Your task to perform on an android device: Go to sound settings Image 0: 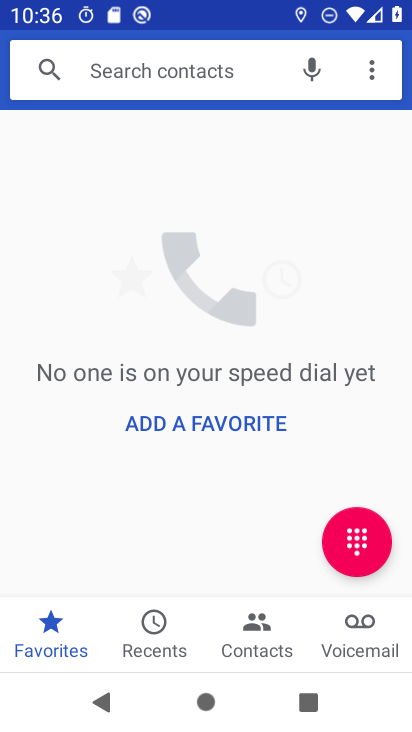
Step 0: press home button
Your task to perform on an android device: Go to sound settings Image 1: 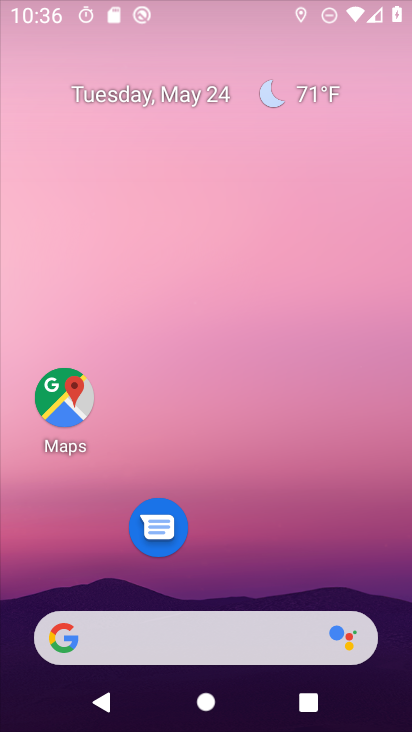
Step 1: drag from (222, 548) to (269, 80)
Your task to perform on an android device: Go to sound settings Image 2: 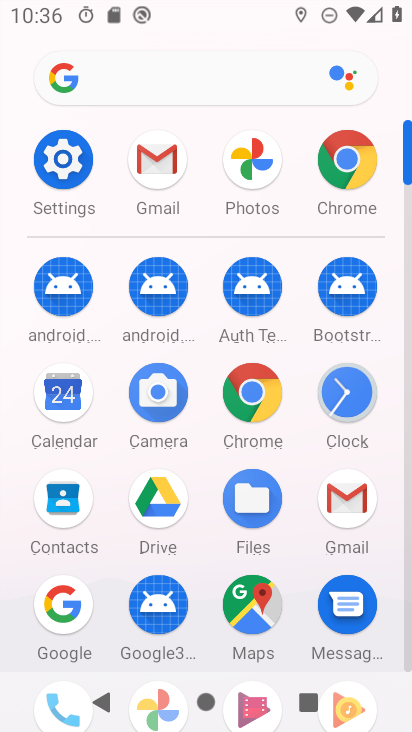
Step 2: click (66, 151)
Your task to perform on an android device: Go to sound settings Image 3: 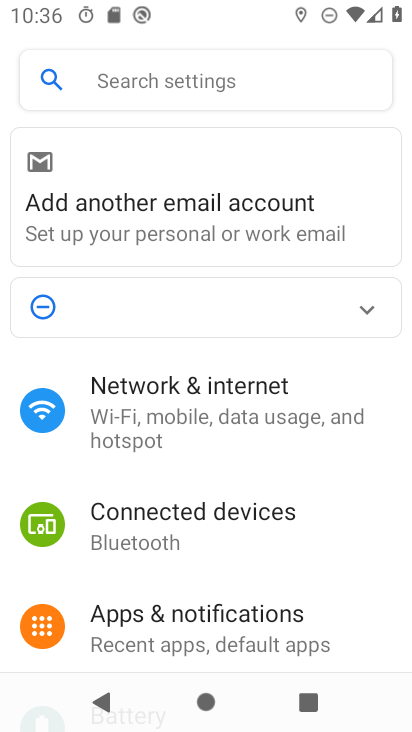
Step 3: drag from (211, 621) to (233, 170)
Your task to perform on an android device: Go to sound settings Image 4: 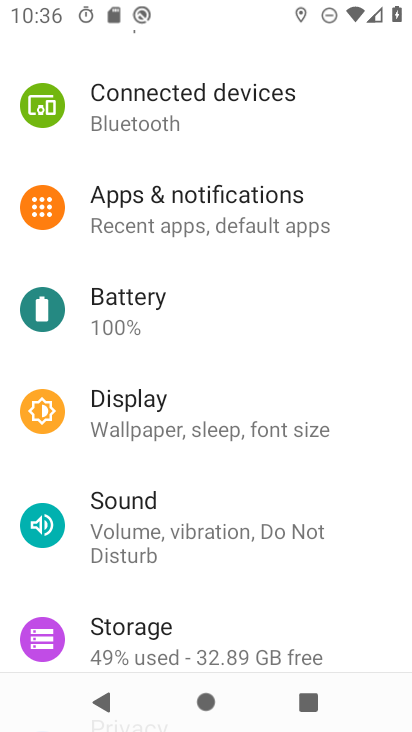
Step 4: click (139, 524)
Your task to perform on an android device: Go to sound settings Image 5: 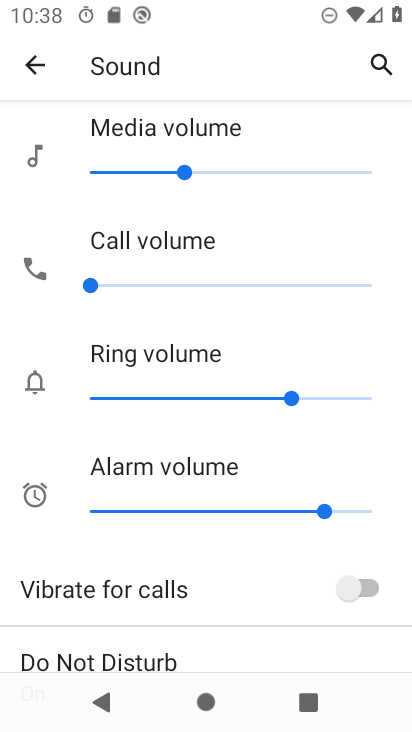
Step 5: task complete